Your task to perform on an android device: toggle priority inbox in the gmail app Image 0: 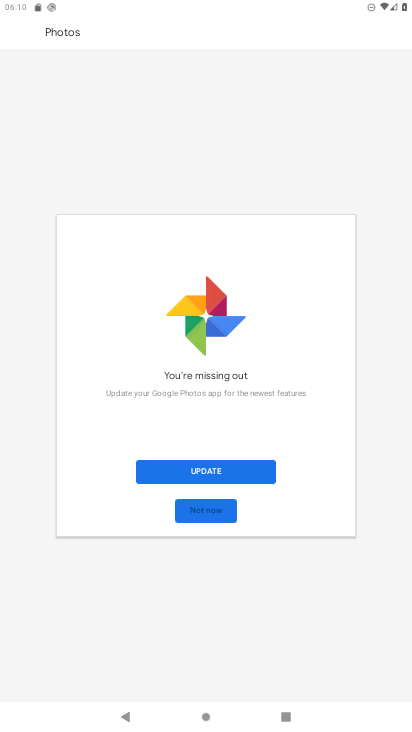
Step 0: press home button
Your task to perform on an android device: toggle priority inbox in the gmail app Image 1: 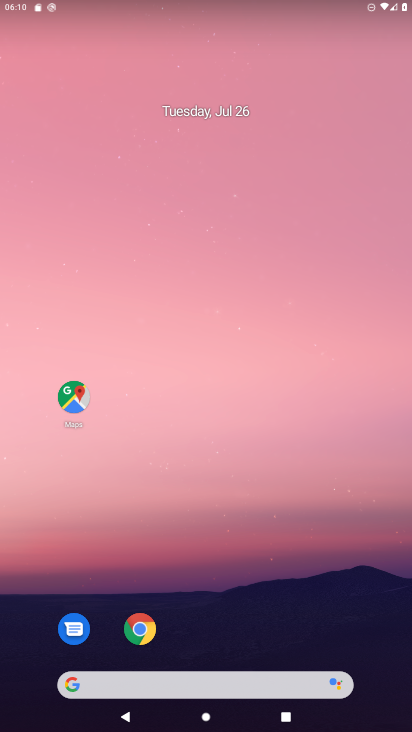
Step 1: drag from (200, 555) to (248, 278)
Your task to perform on an android device: toggle priority inbox in the gmail app Image 2: 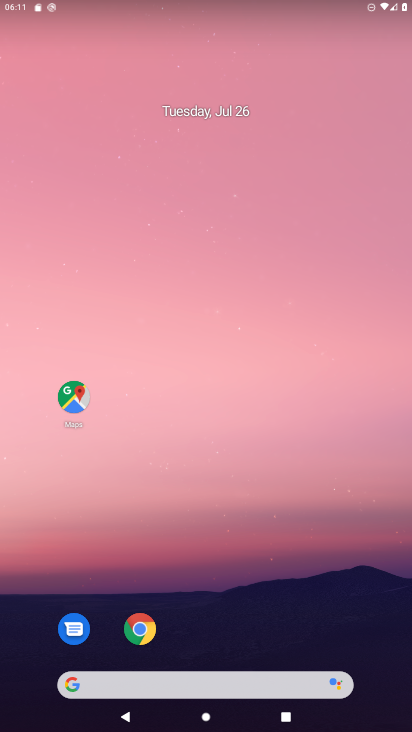
Step 2: drag from (202, 579) to (205, 66)
Your task to perform on an android device: toggle priority inbox in the gmail app Image 3: 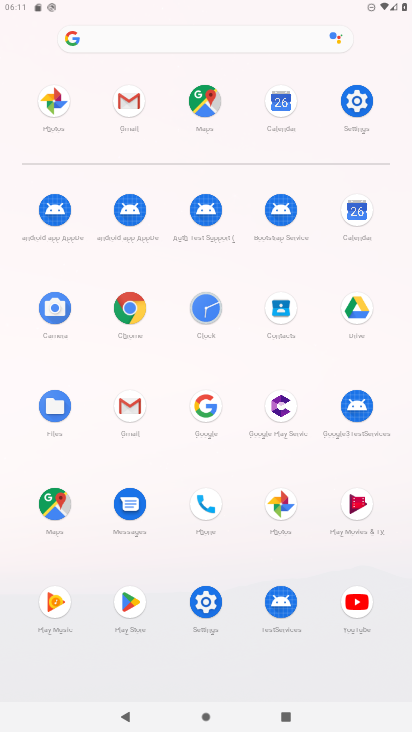
Step 3: click (129, 109)
Your task to perform on an android device: toggle priority inbox in the gmail app Image 4: 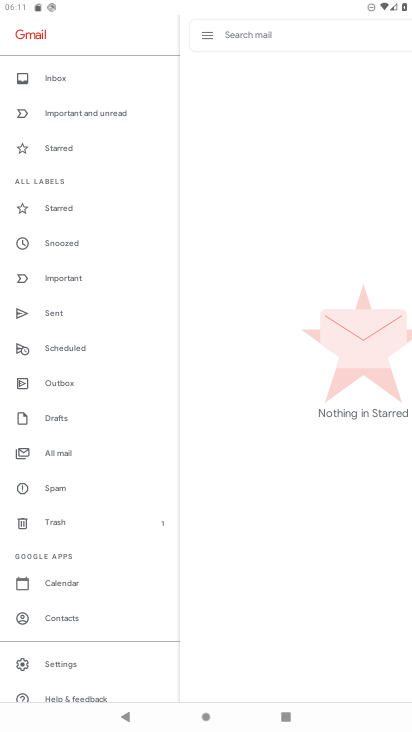
Step 4: click (59, 663)
Your task to perform on an android device: toggle priority inbox in the gmail app Image 5: 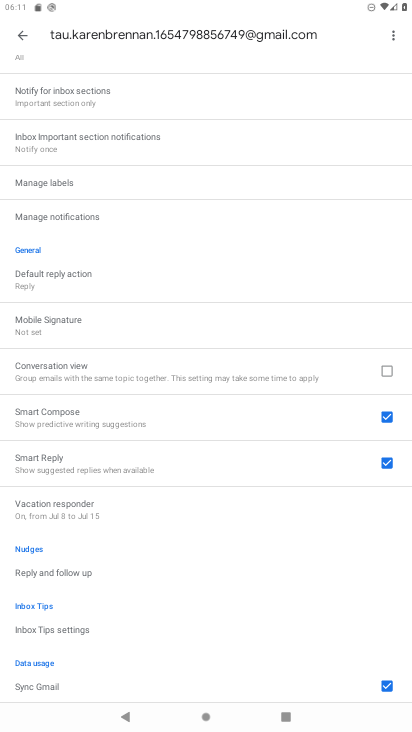
Step 5: drag from (98, 176) to (86, 588)
Your task to perform on an android device: toggle priority inbox in the gmail app Image 6: 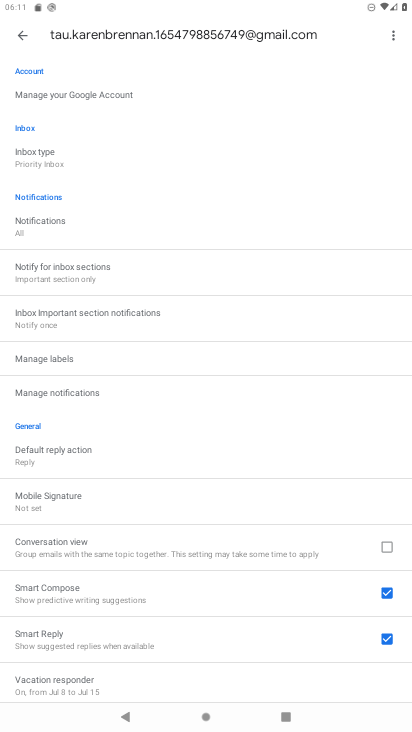
Step 6: click (38, 153)
Your task to perform on an android device: toggle priority inbox in the gmail app Image 7: 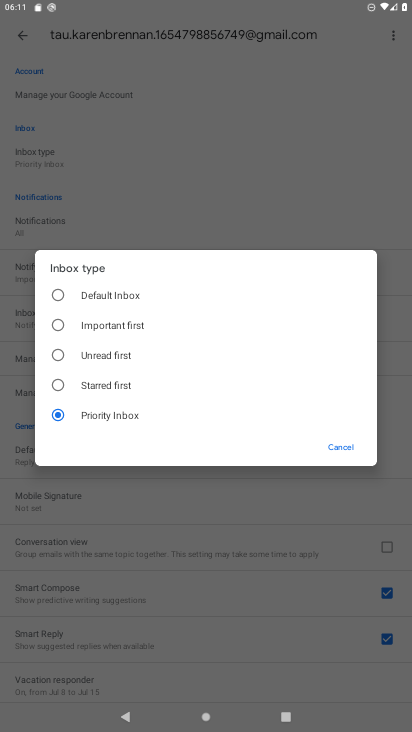
Step 7: click (58, 295)
Your task to perform on an android device: toggle priority inbox in the gmail app Image 8: 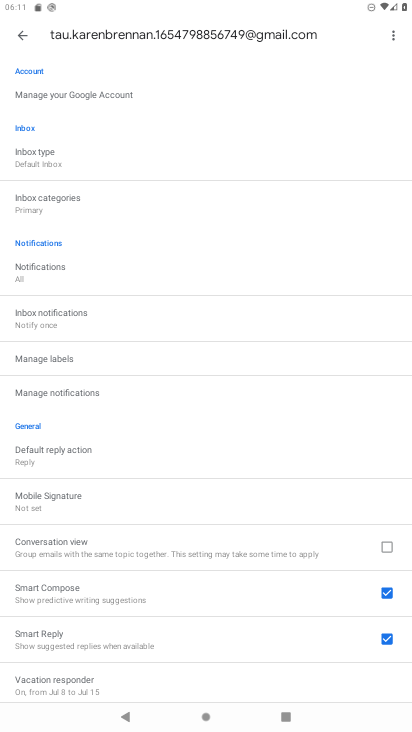
Step 8: task complete